Your task to perform on an android device: toggle priority inbox in the gmail app Image 0: 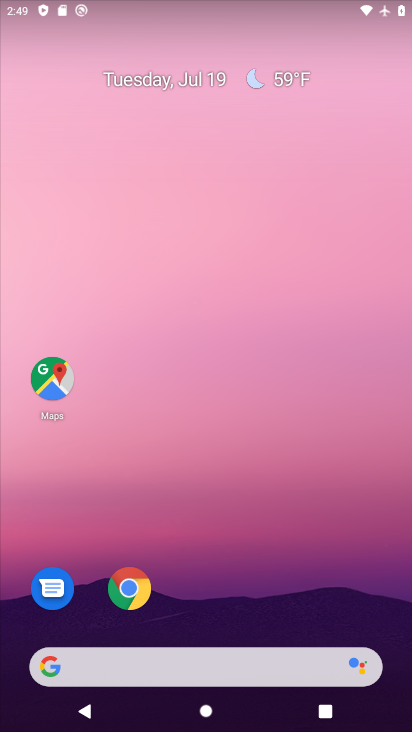
Step 0: press home button
Your task to perform on an android device: toggle priority inbox in the gmail app Image 1: 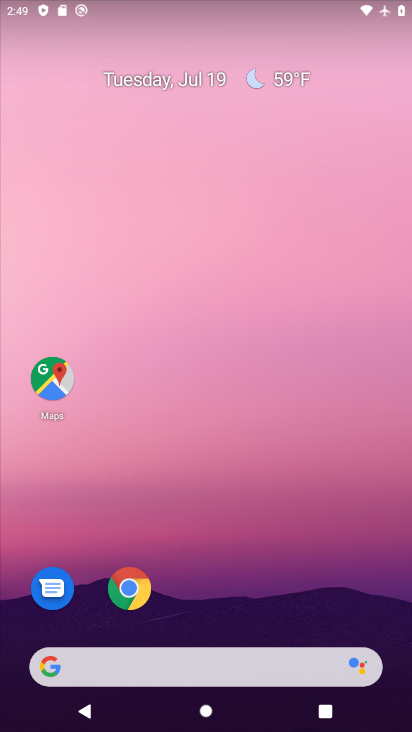
Step 1: drag from (229, 626) to (203, 236)
Your task to perform on an android device: toggle priority inbox in the gmail app Image 2: 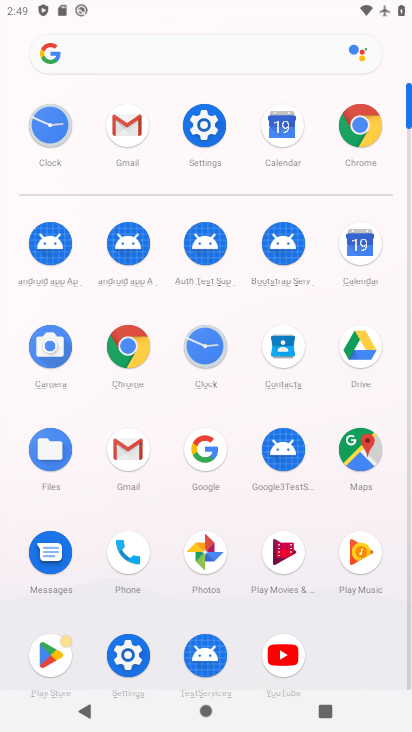
Step 2: click (137, 120)
Your task to perform on an android device: toggle priority inbox in the gmail app Image 3: 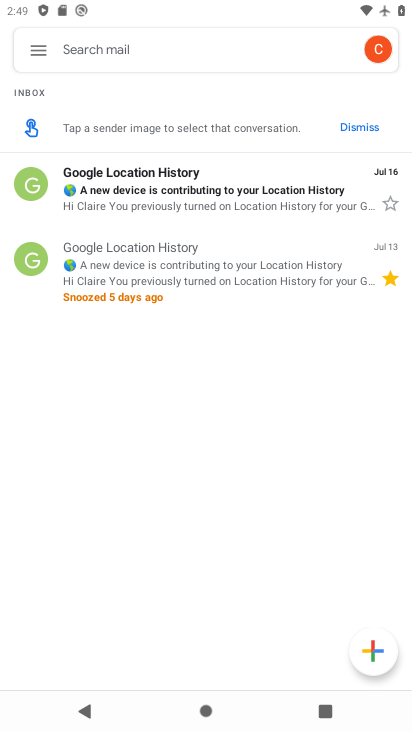
Step 3: click (44, 68)
Your task to perform on an android device: toggle priority inbox in the gmail app Image 4: 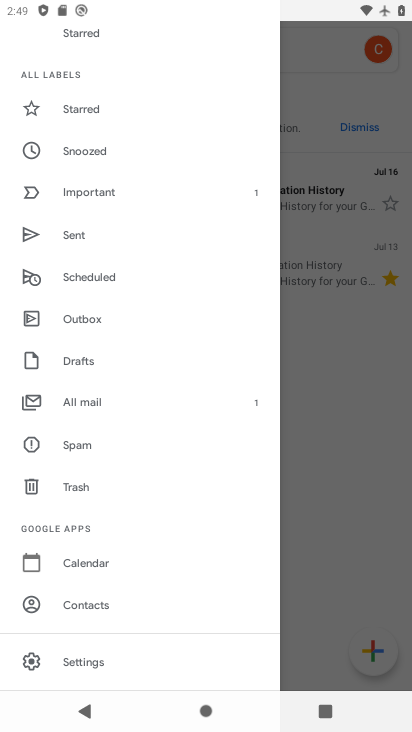
Step 4: click (96, 668)
Your task to perform on an android device: toggle priority inbox in the gmail app Image 5: 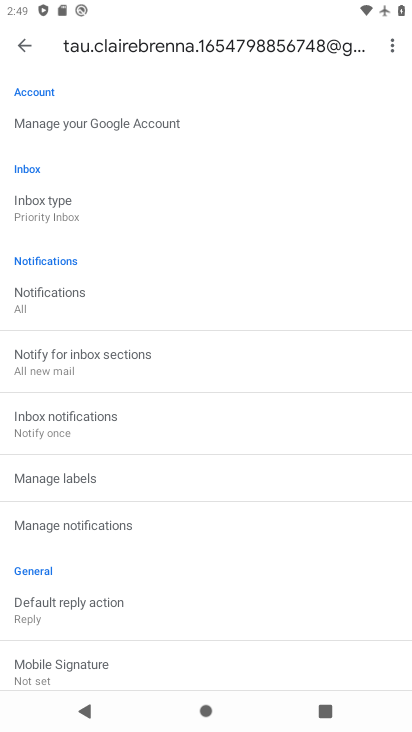
Step 5: click (30, 217)
Your task to perform on an android device: toggle priority inbox in the gmail app Image 6: 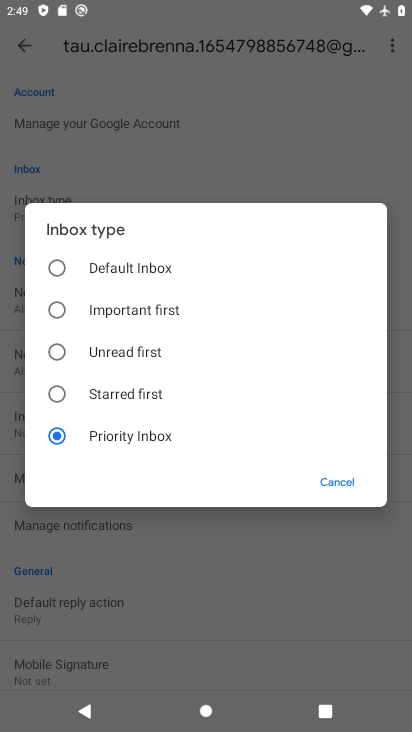
Step 6: click (50, 350)
Your task to perform on an android device: toggle priority inbox in the gmail app Image 7: 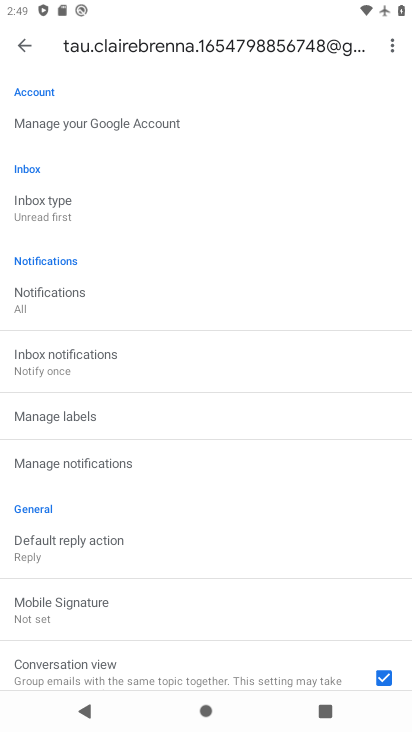
Step 7: task complete